Your task to perform on an android device: Open Reddit.com Image 0: 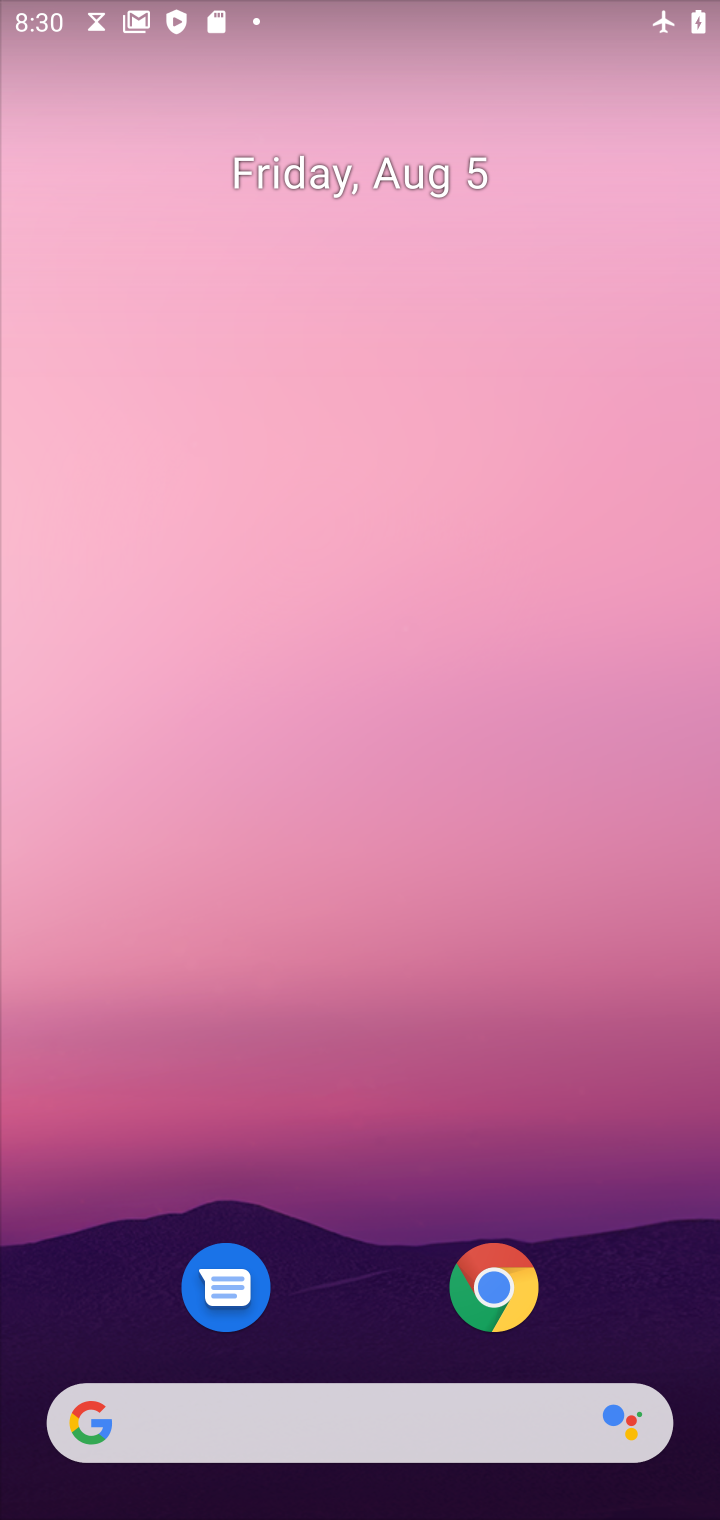
Step 0: click (493, 1299)
Your task to perform on an android device: Open Reddit.com Image 1: 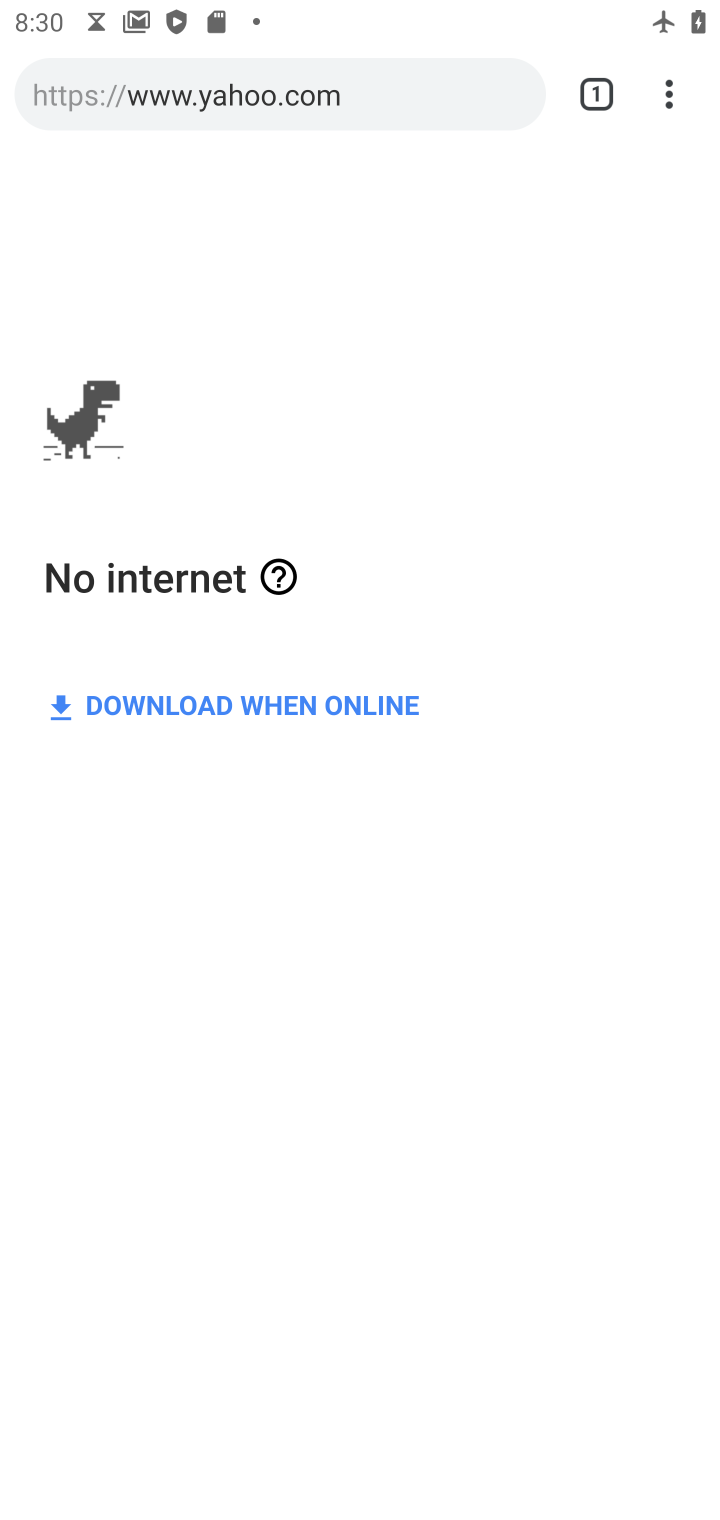
Step 1: click (671, 107)
Your task to perform on an android device: Open Reddit.com Image 2: 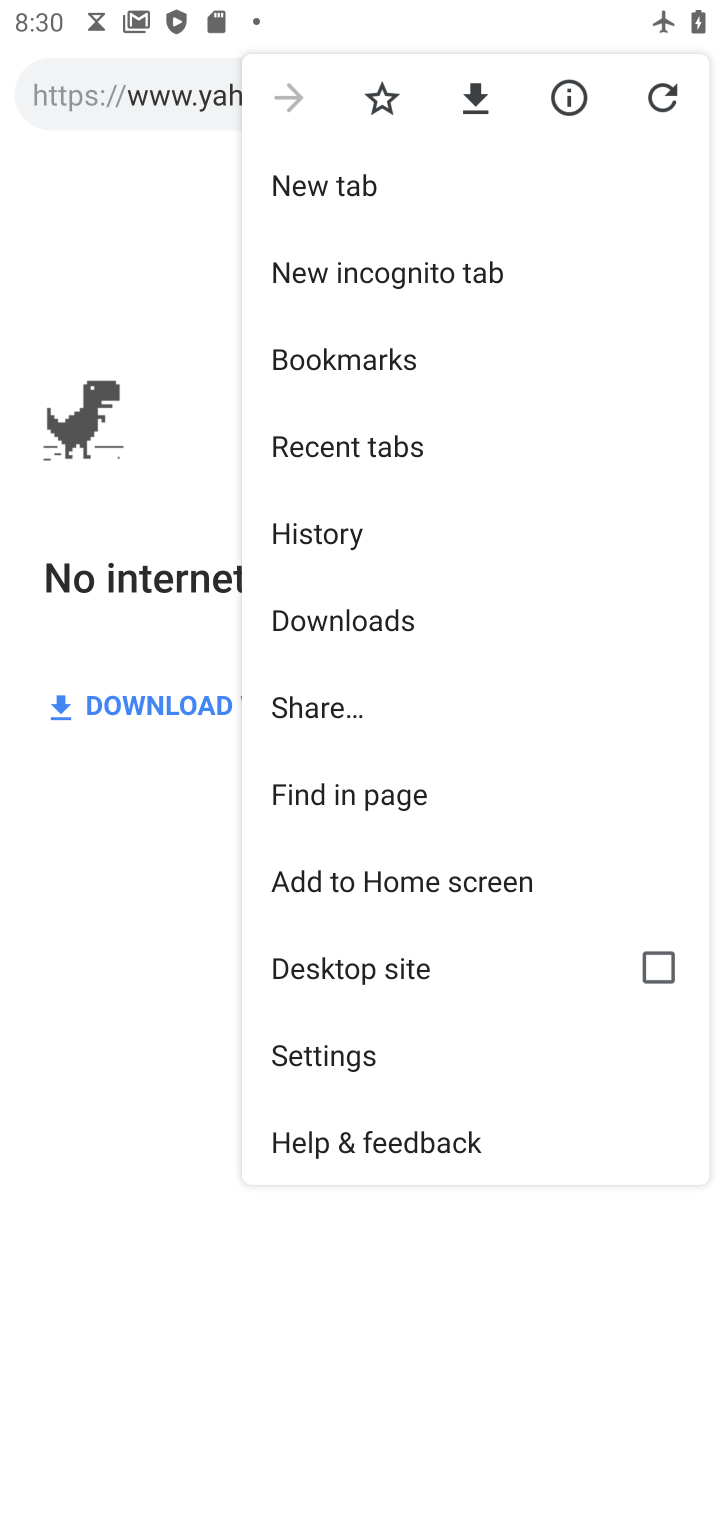
Step 2: click (330, 173)
Your task to perform on an android device: Open Reddit.com Image 3: 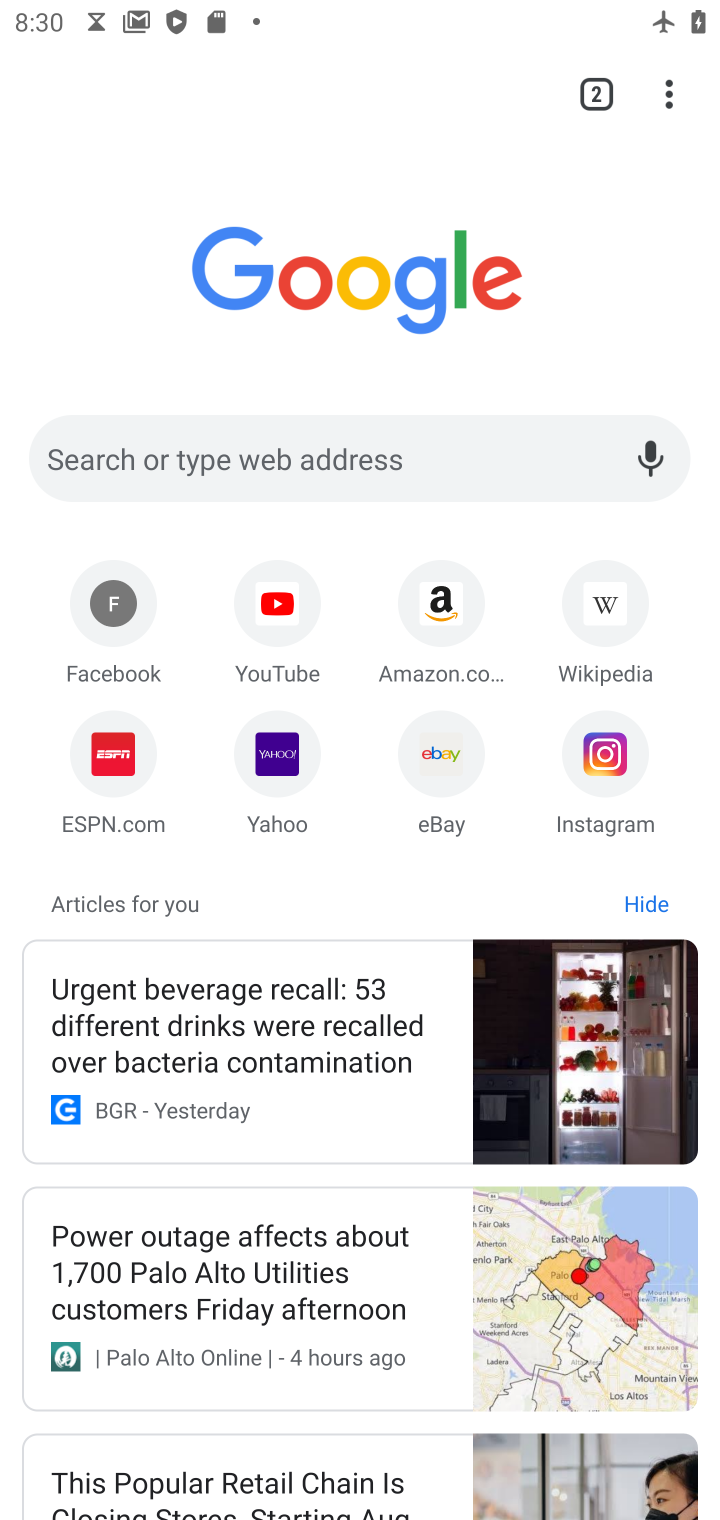
Step 3: task complete